Your task to perform on an android device: Open Youtube and go to "Your channel" Image 0: 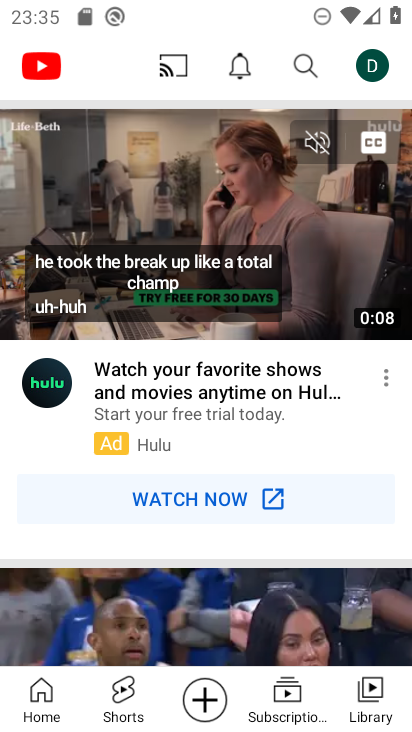
Step 0: press home button
Your task to perform on an android device: Open Youtube and go to "Your channel" Image 1: 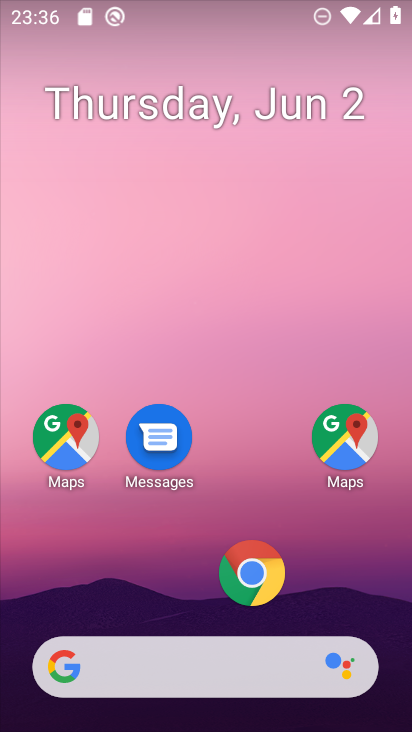
Step 1: drag from (226, 487) to (256, 147)
Your task to perform on an android device: Open Youtube and go to "Your channel" Image 2: 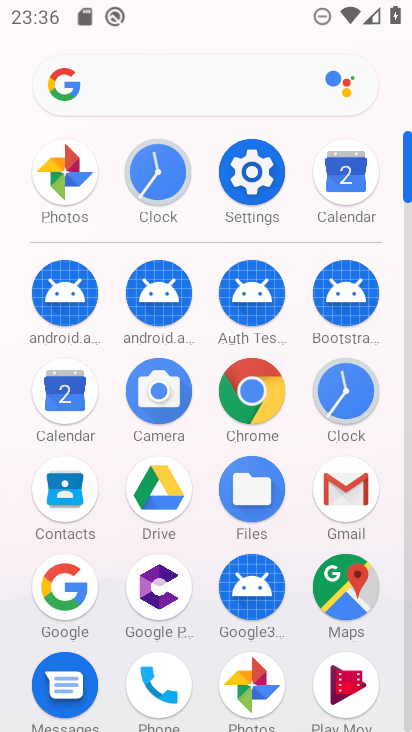
Step 2: drag from (298, 620) to (275, 204)
Your task to perform on an android device: Open Youtube and go to "Your channel" Image 3: 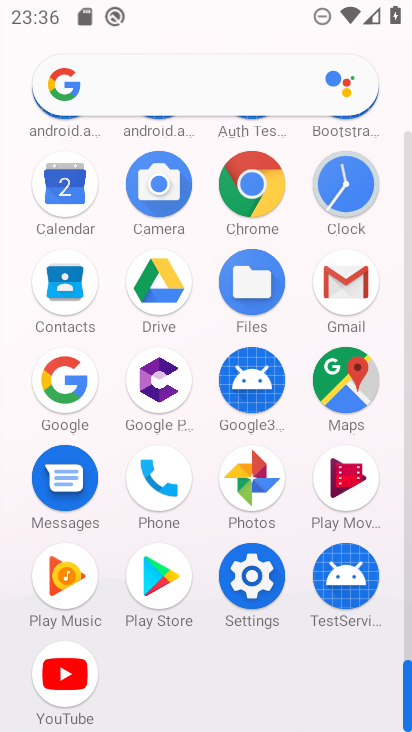
Step 3: click (71, 654)
Your task to perform on an android device: Open Youtube and go to "Your channel" Image 4: 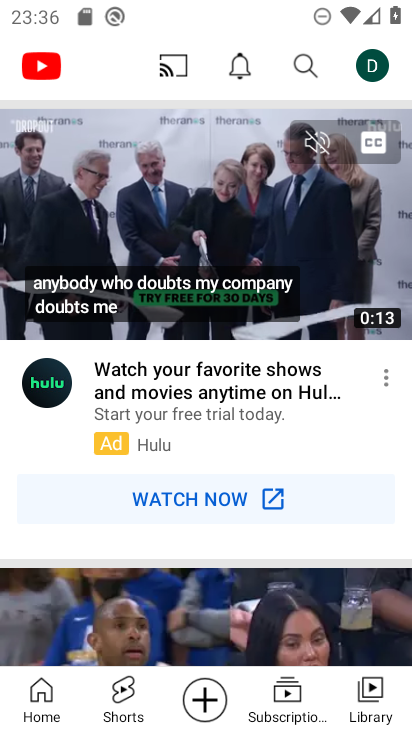
Step 4: click (366, 86)
Your task to perform on an android device: Open Youtube and go to "Your channel" Image 5: 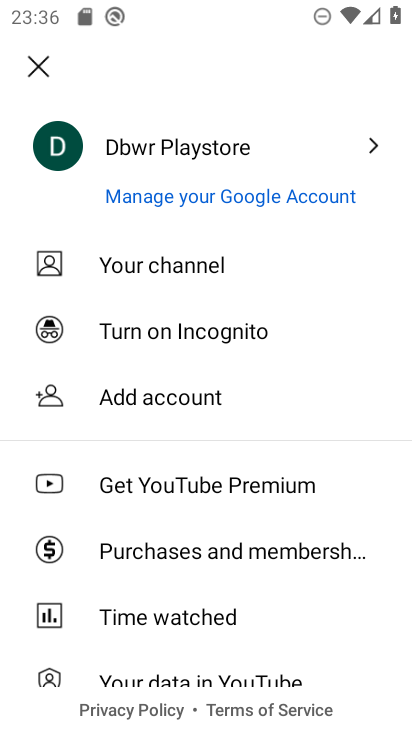
Step 5: click (210, 280)
Your task to perform on an android device: Open Youtube and go to "Your channel" Image 6: 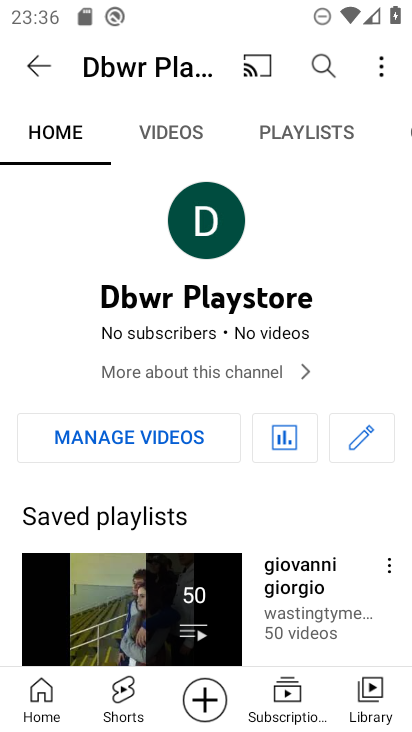
Step 6: task complete